Your task to perform on an android device: Open internet settings Image 0: 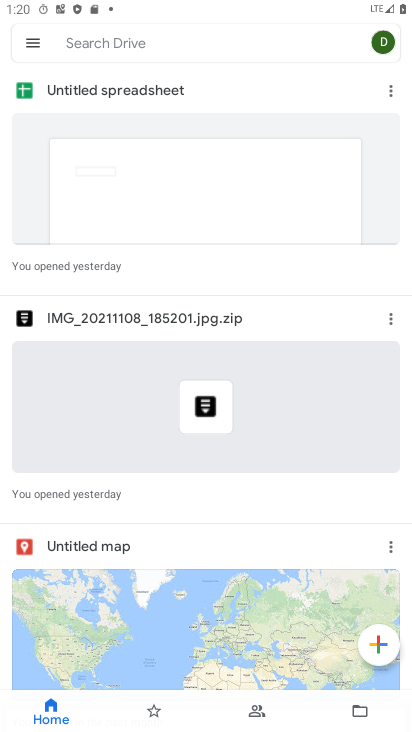
Step 0: press home button
Your task to perform on an android device: Open internet settings Image 1: 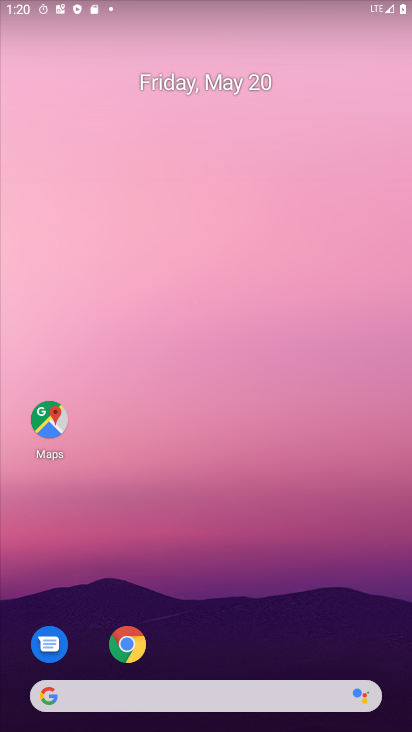
Step 1: drag from (264, 628) to (294, 116)
Your task to perform on an android device: Open internet settings Image 2: 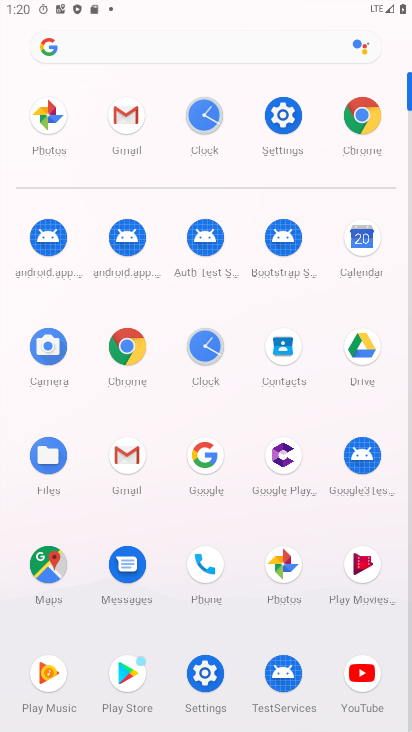
Step 2: click (285, 143)
Your task to perform on an android device: Open internet settings Image 3: 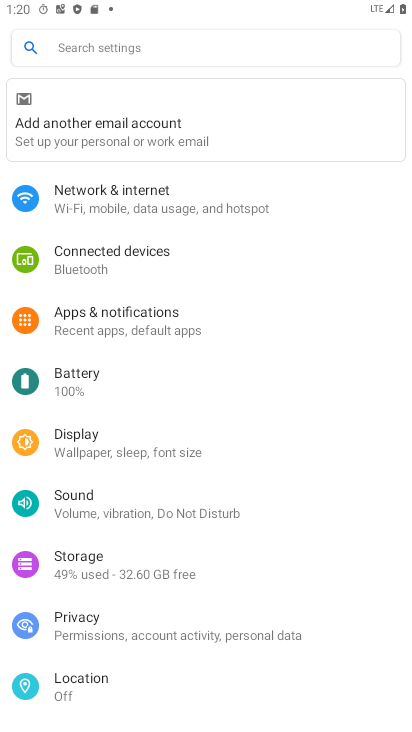
Step 3: click (126, 200)
Your task to perform on an android device: Open internet settings Image 4: 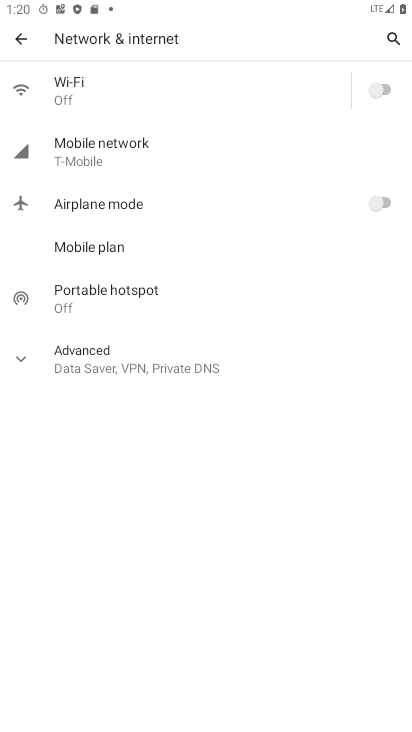
Step 4: task complete